Your task to perform on an android device: Open settings on Google Maps Image 0: 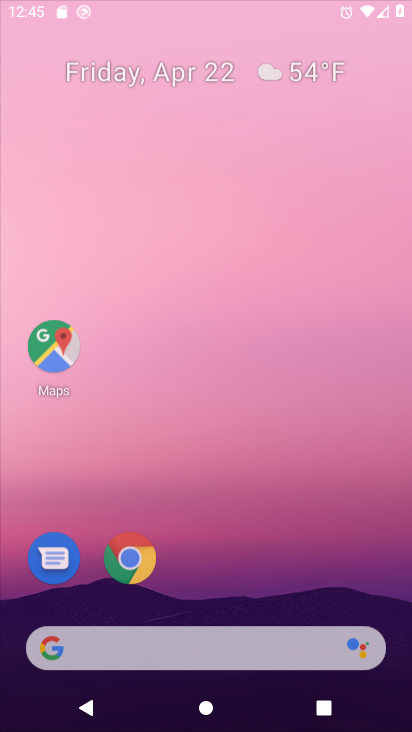
Step 0: drag from (251, 588) to (271, 158)
Your task to perform on an android device: Open settings on Google Maps Image 1: 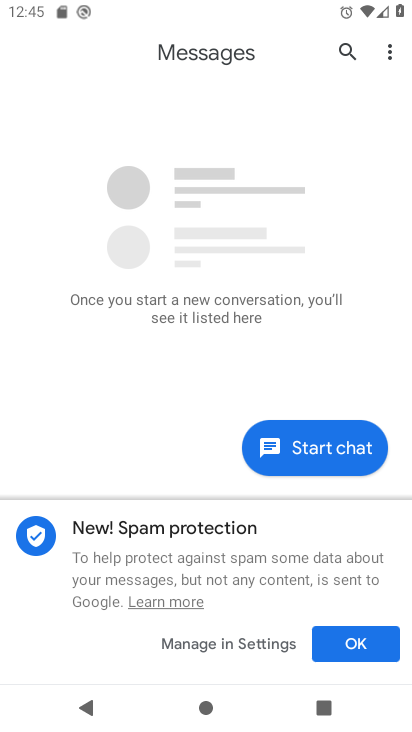
Step 1: press home button
Your task to perform on an android device: Open settings on Google Maps Image 2: 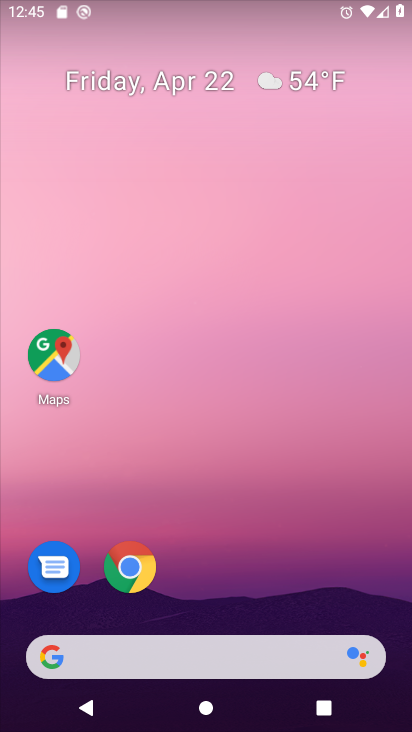
Step 2: drag from (265, 560) to (337, 166)
Your task to perform on an android device: Open settings on Google Maps Image 3: 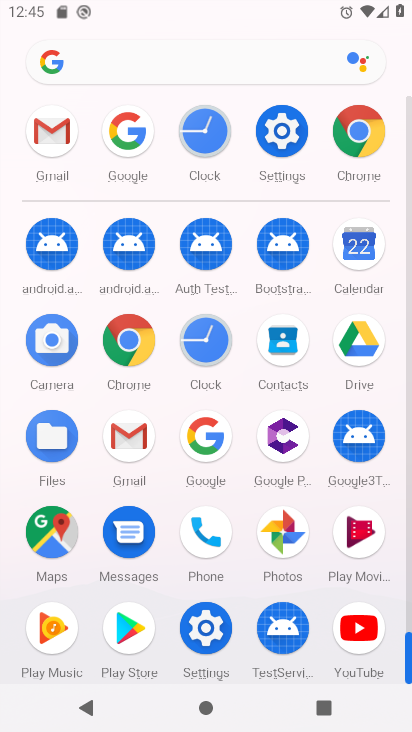
Step 3: click (46, 533)
Your task to perform on an android device: Open settings on Google Maps Image 4: 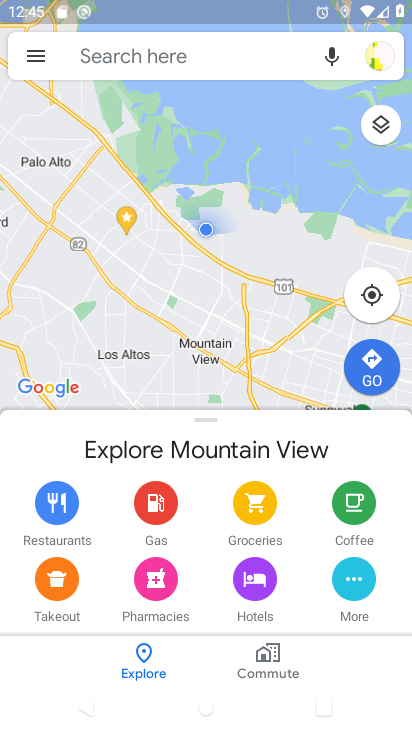
Step 4: click (39, 66)
Your task to perform on an android device: Open settings on Google Maps Image 5: 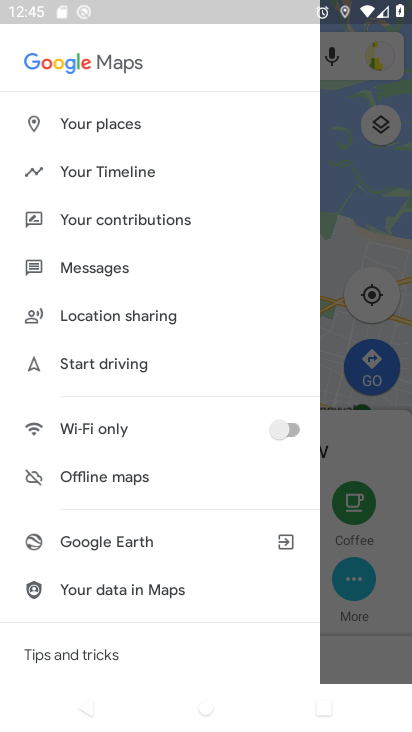
Step 5: drag from (146, 511) to (225, 148)
Your task to perform on an android device: Open settings on Google Maps Image 6: 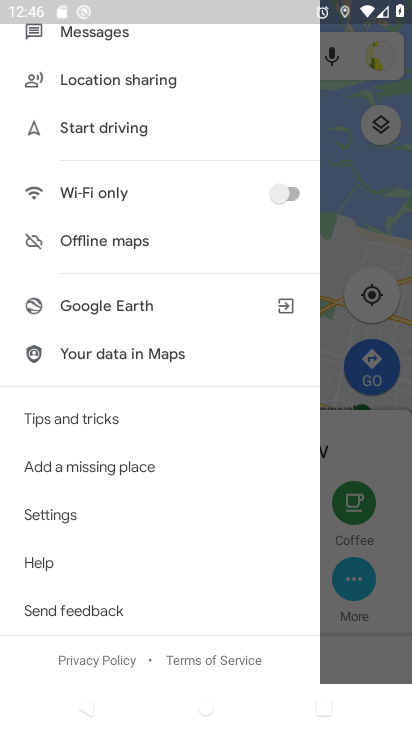
Step 6: drag from (125, 470) to (159, 216)
Your task to perform on an android device: Open settings on Google Maps Image 7: 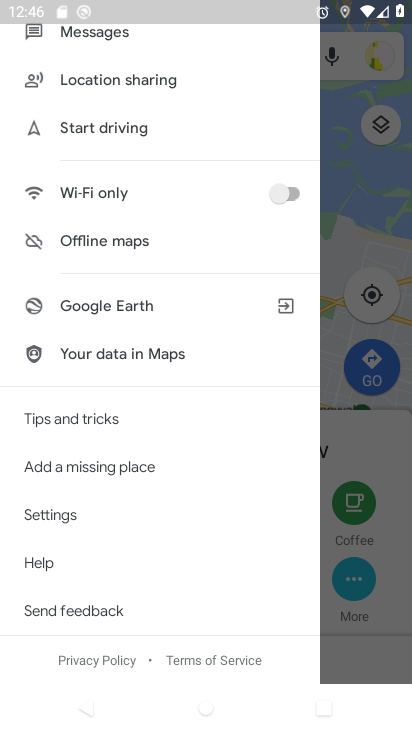
Step 7: click (94, 513)
Your task to perform on an android device: Open settings on Google Maps Image 8: 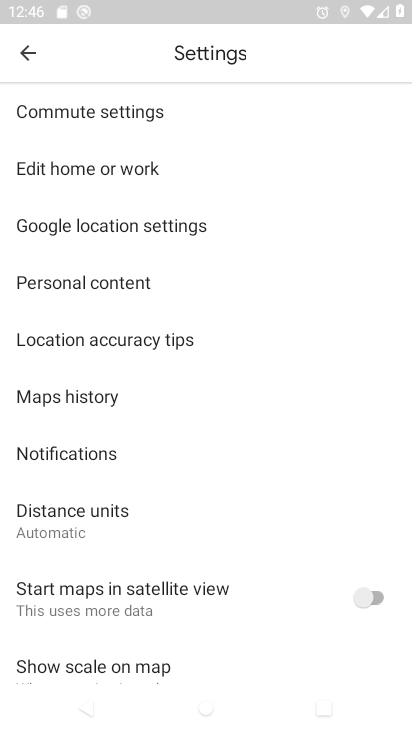
Step 8: task complete